Your task to perform on an android device: change timer sound Image 0: 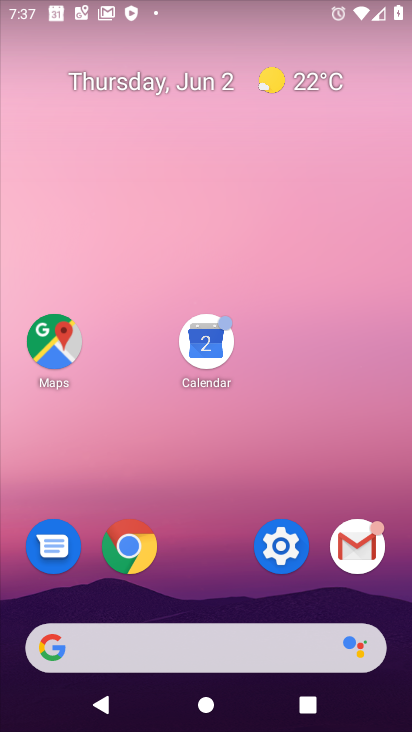
Step 0: press home button
Your task to perform on an android device: change timer sound Image 1: 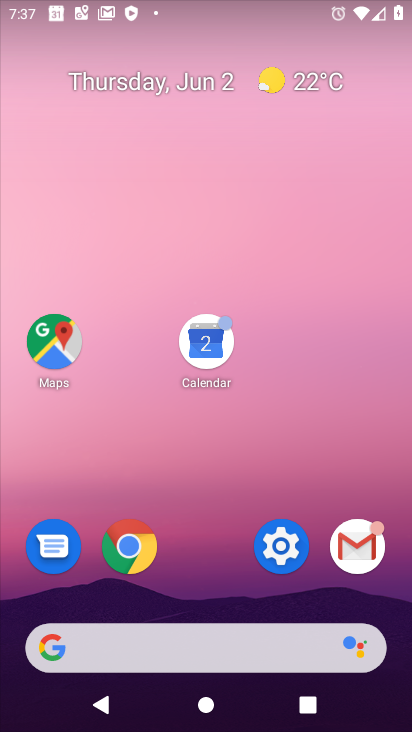
Step 1: drag from (236, 678) to (233, 69)
Your task to perform on an android device: change timer sound Image 2: 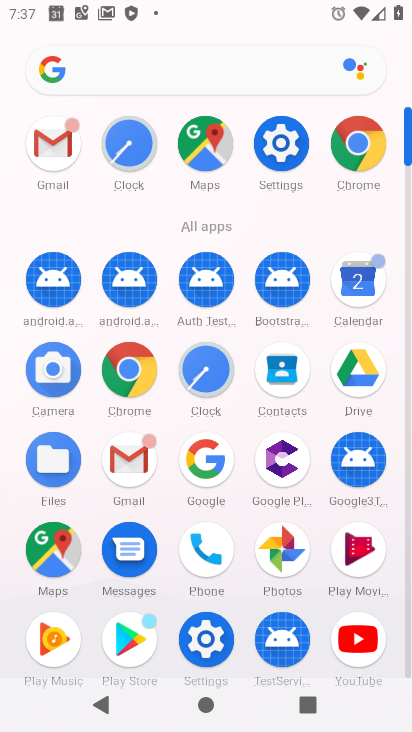
Step 2: click (203, 375)
Your task to perform on an android device: change timer sound Image 3: 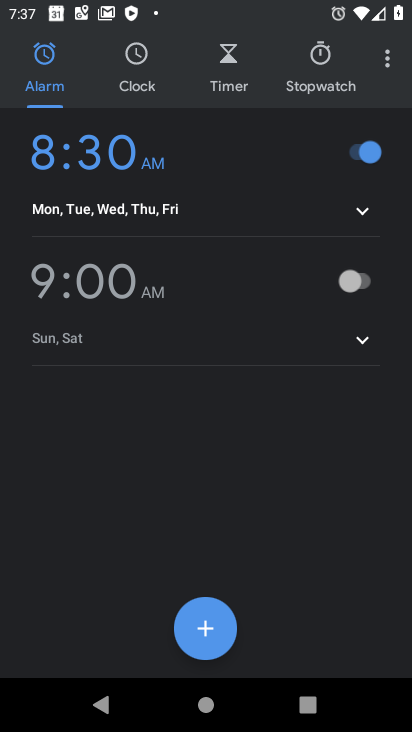
Step 3: click (387, 64)
Your task to perform on an android device: change timer sound Image 4: 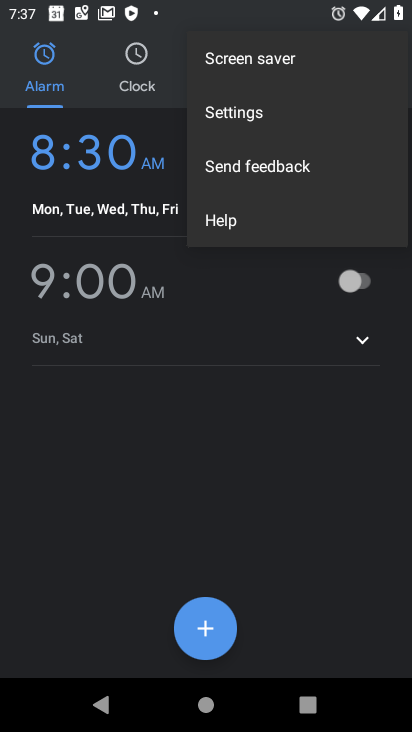
Step 4: click (238, 118)
Your task to perform on an android device: change timer sound Image 5: 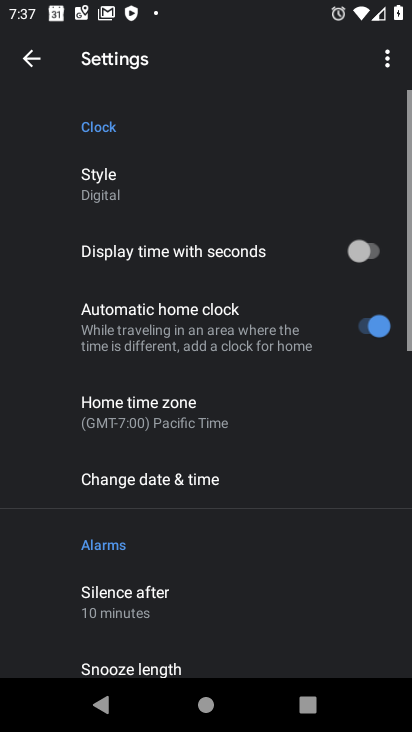
Step 5: click (238, 118)
Your task to perform on an android device: change timer sound Image 6: 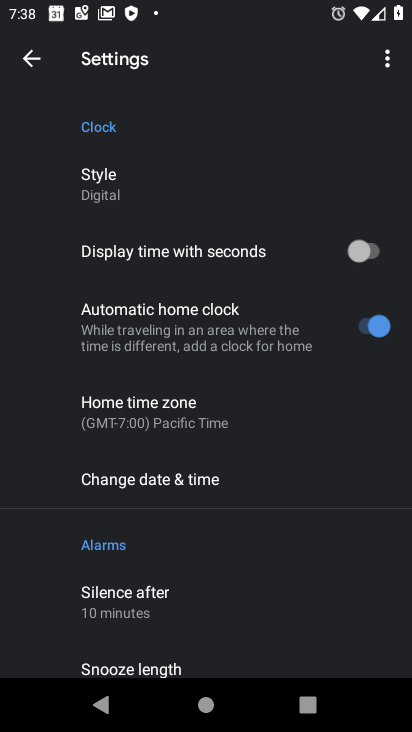
Step 6: drag from (191, 599) to (211, 332)
Your task to perform on an android device: change timer sound Image 7: 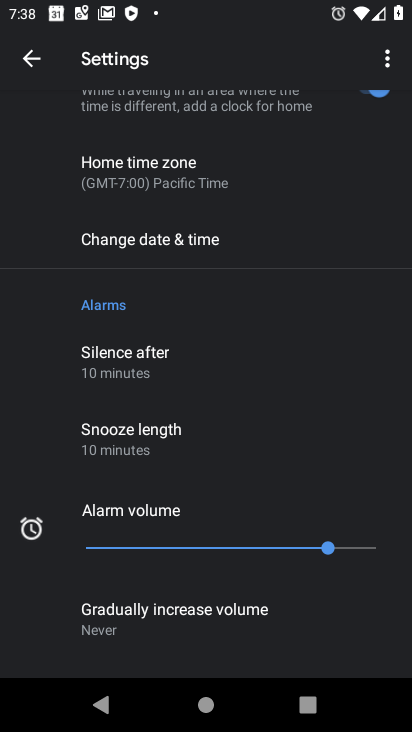
Step 7: drag from (194, 436) to (217, 335)
Your task to perform on an android device: change timer sound Image 8: 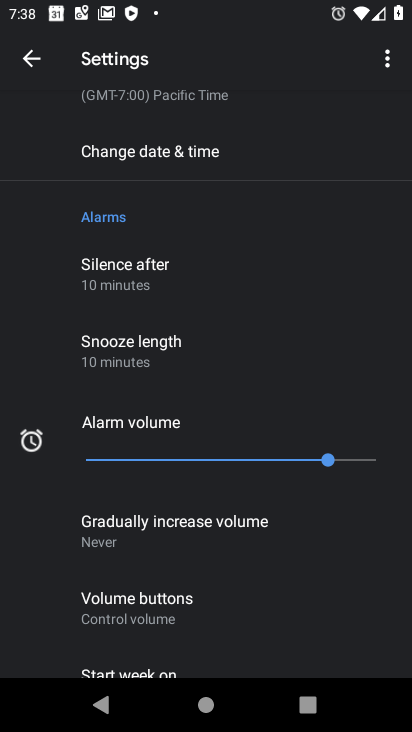
Step 8: drag from (181, 550) to (223, 271)
Your task to perform on an android device: change timer sound Image 9: 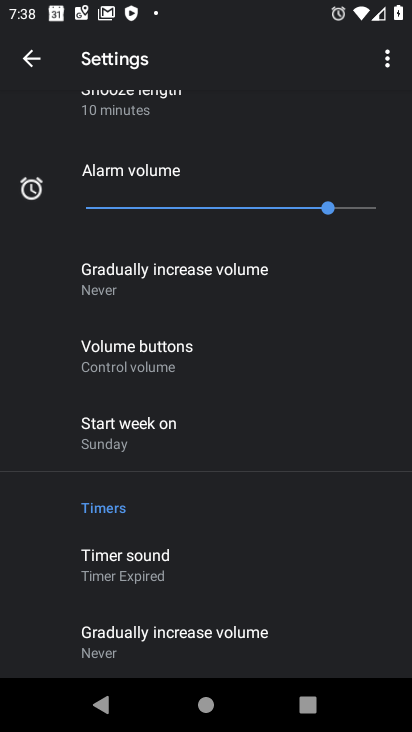
Step 9: click (149, 571)
Your task to perform on an android device: change timer sound Image 10: 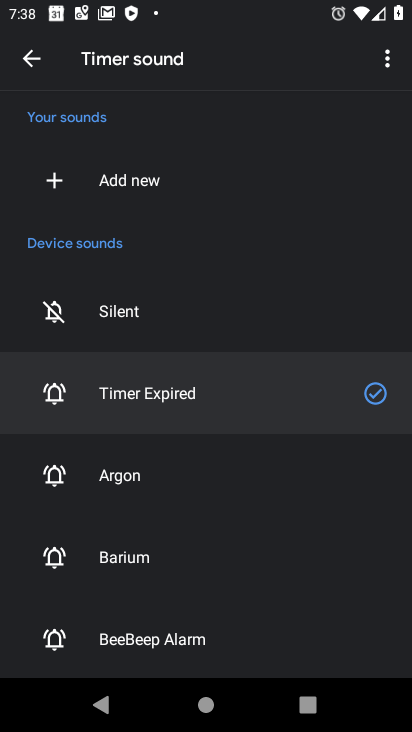
Step 10: click (131, 475)
Your task to perform on an android device: change timer sound Image 11: 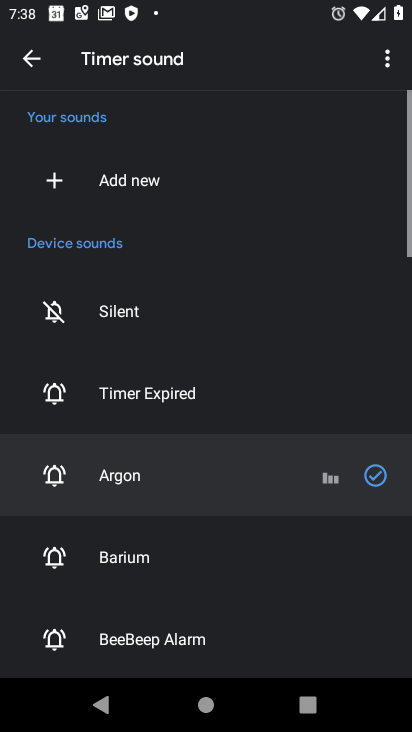
Step 11: click (131, 475)
Your task to perform on an android device: change timer sound Image 12: 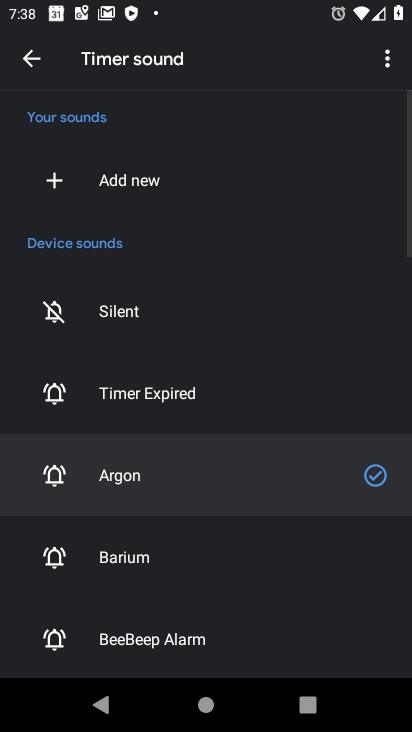
Step 12: task complete